Your task to perform on an android device: find photos in the google photos app Image 0: 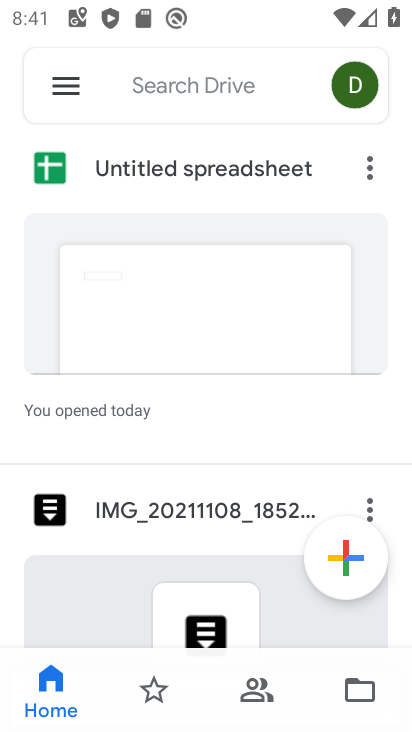
Step 0: press home button
Your task to perform on an android device: find photos in the google photos app Image 1: 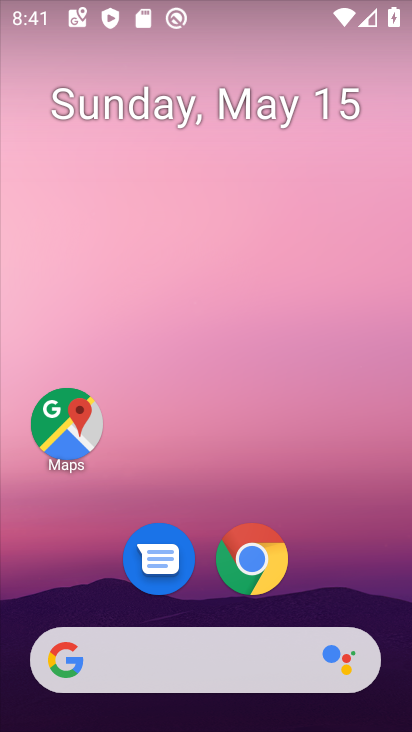
Step 1: drag from (358, 587) to (378, 207)
Your task to perform on an android device: find photos in the google photos app Image 2: 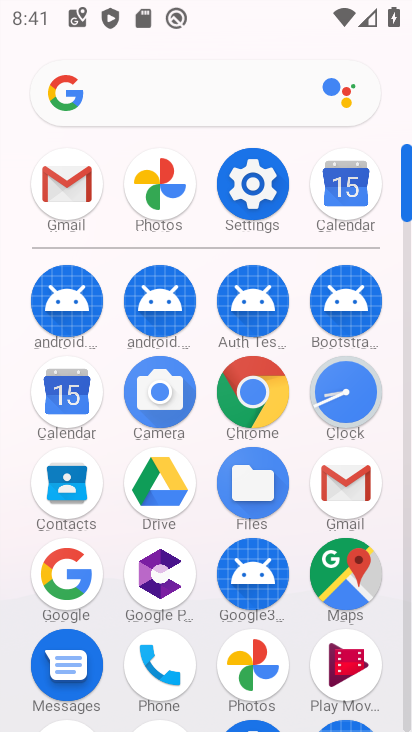
Step 2: click (255, 669)
Your task to perform on an android device: find photos in the google photos app Image 3: 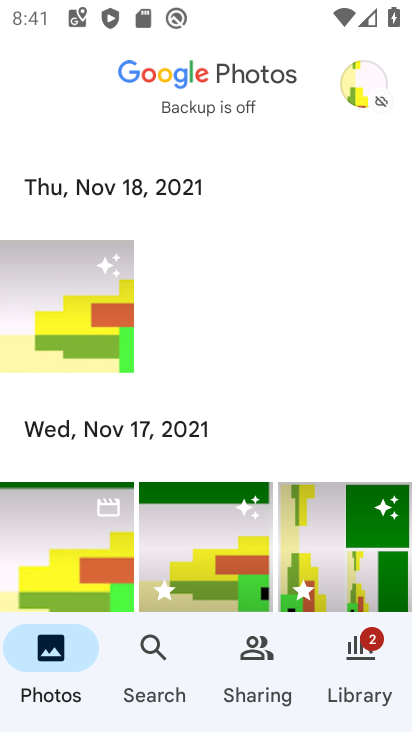
Step 3: task complete